Your task to perform on an android device: Go to Android settings Image 0: 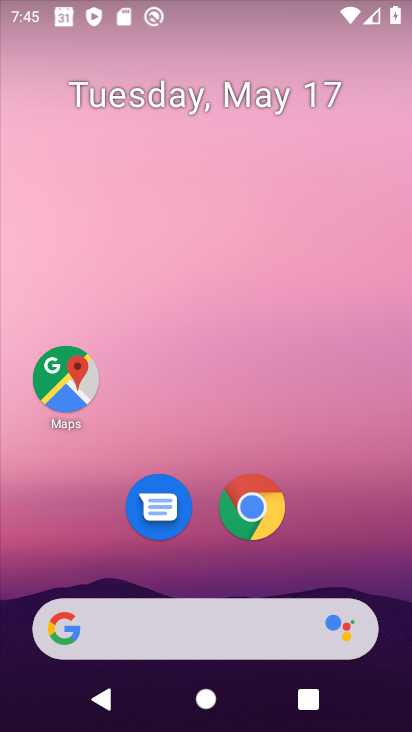
Step 0: drag from (386, 563) to (339, 7)
Your task to perform on an android device: Go to Android settings Image 1: 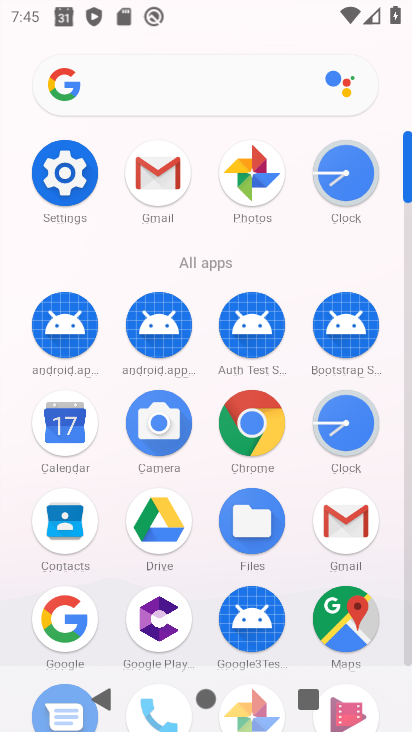
Step 1: click (53, 178)
Your task to perform on an android device: Go to Android settings Image 2: 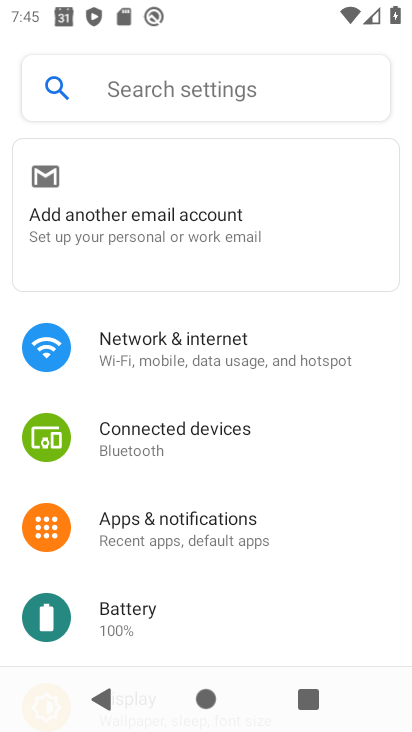
Step 2: task complete